Your task to perform on an android device: turn pop-ups off in chrome Image 0: 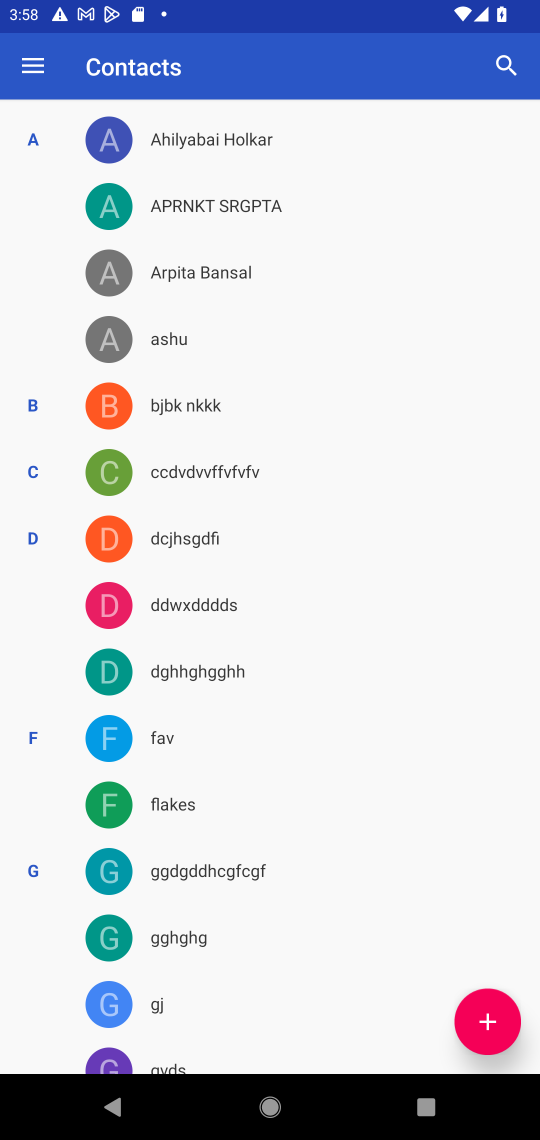
Step 0: press home button
Your task to perform on an android device: turn pop-ups off in chrome Image 1: 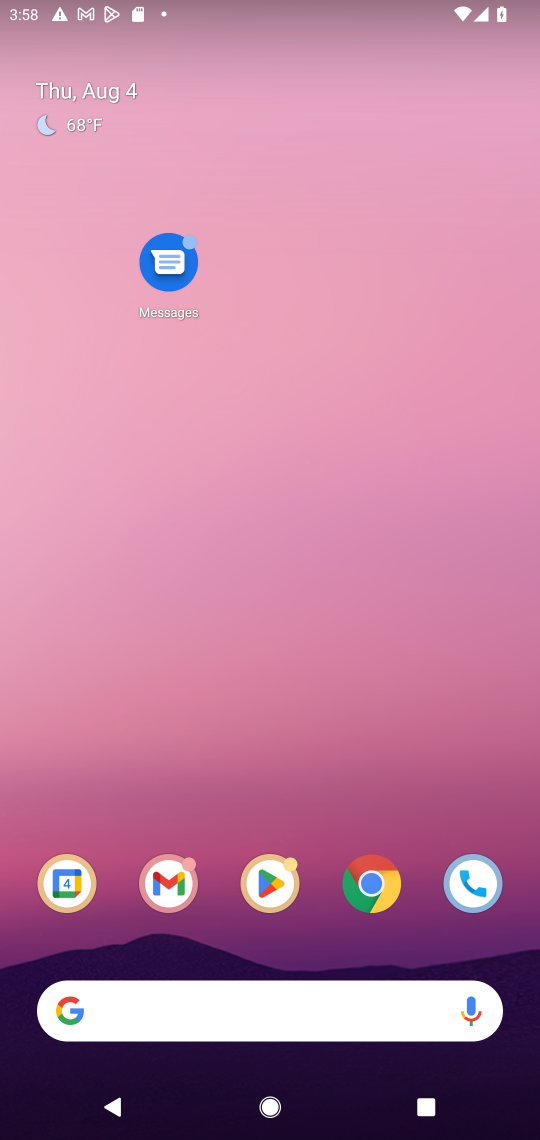
Step 1: click (382, 890)
Your task to perform on an android device: turn pop-ups off in chrome Image 2: 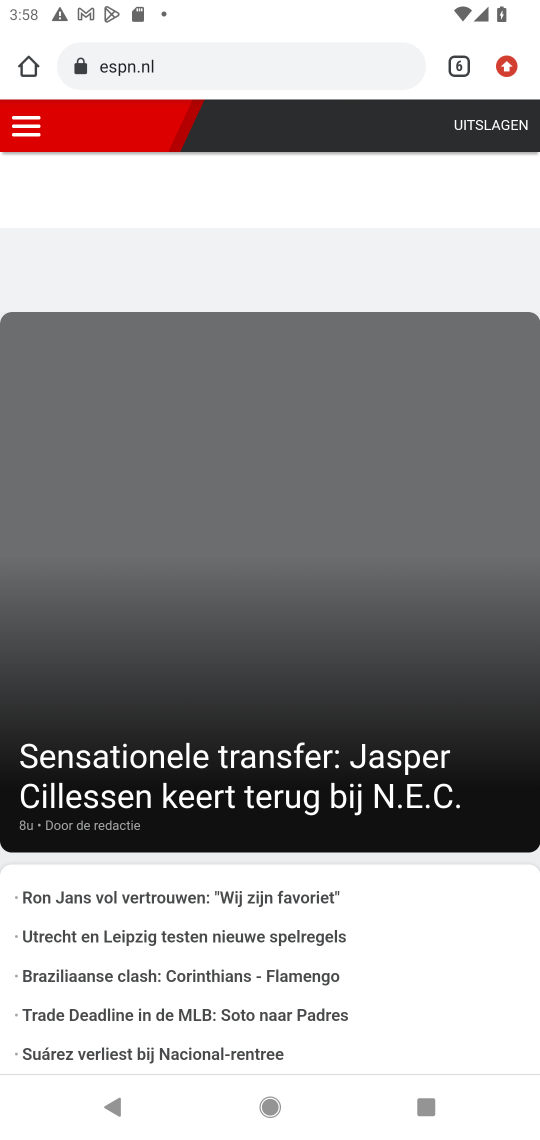
Step 2: press home button
Your task to perform on an android device: turn pop-ups off in chrome Image 3: 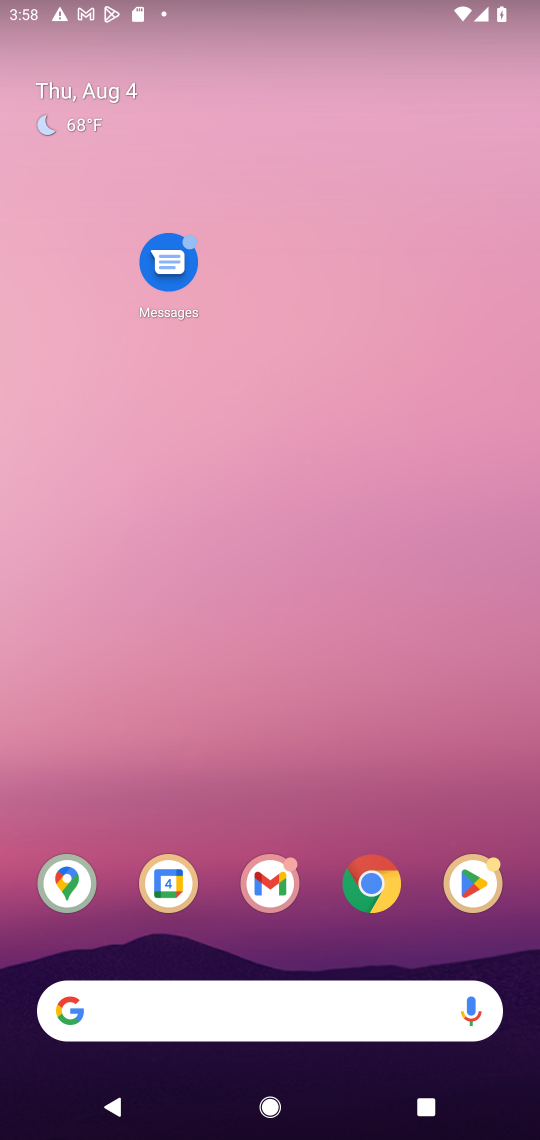
Step 3: drag from (322, 885) to (324, 20)
Your task to perform on an android device: turn pop-ups off in chrome Image 4: 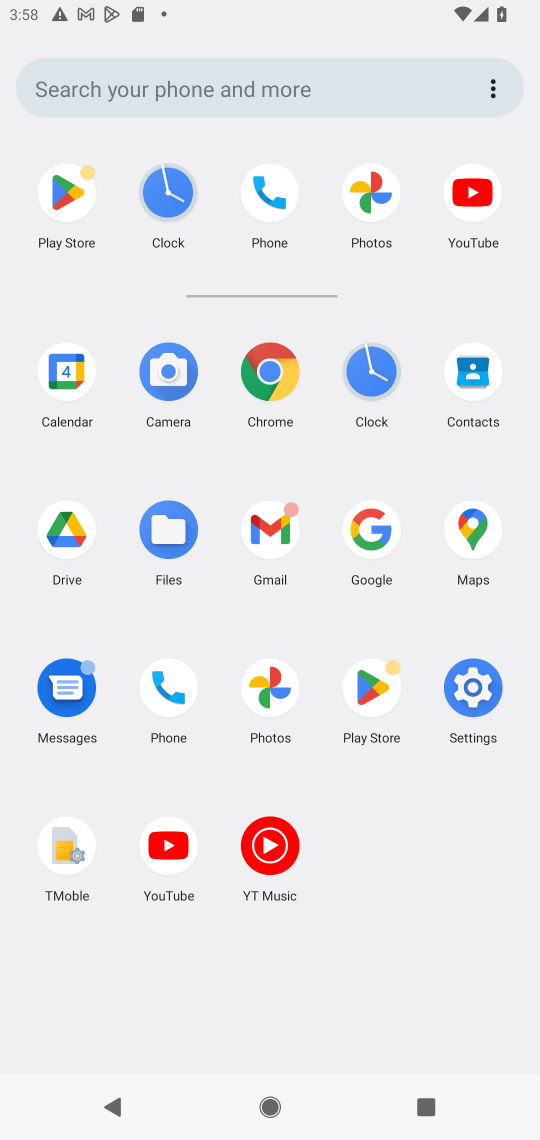
Step 4: click (277, 367)
Your task to perform on an android device: turn pop-ups off in chrome Image 5: 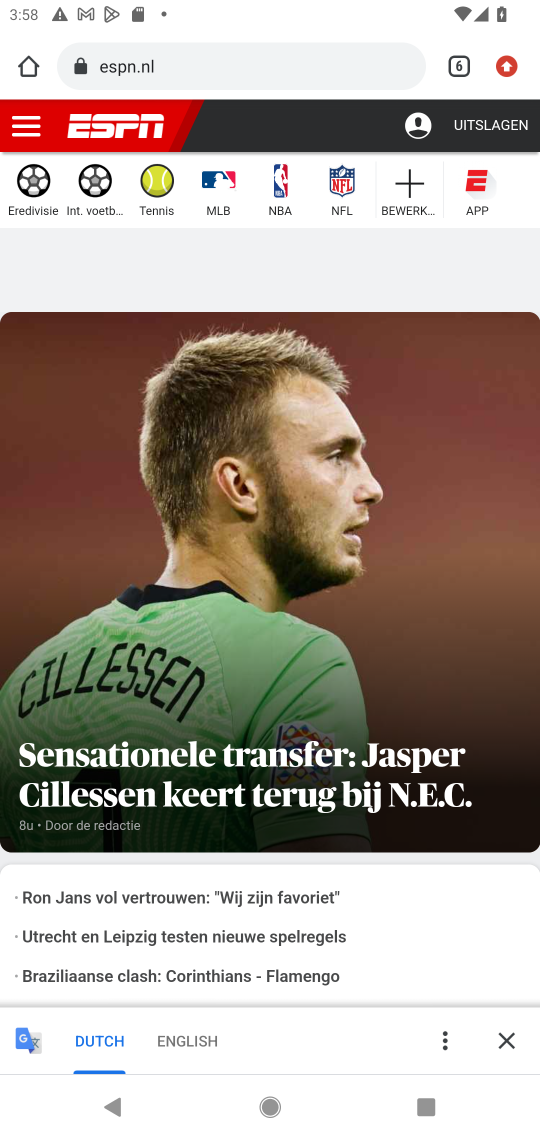
Step 5: click (507, 70)
Your task to perform on an android device: turn pop-ups off in chrome Image 6: 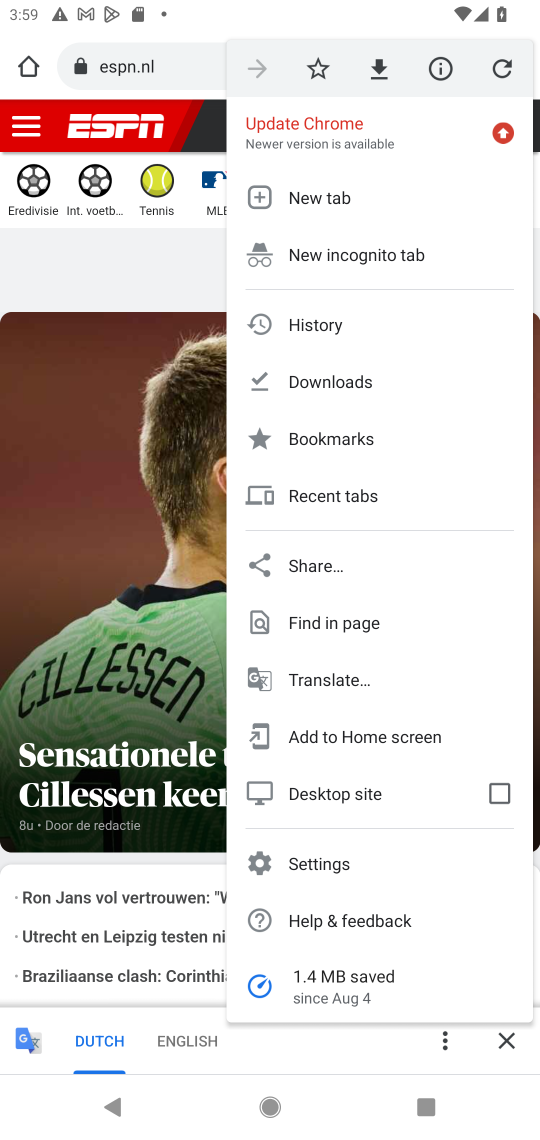
Step 6: click (308, 865)
Your task to perform on an android device: turn pop-ups off in chrome Image 7: 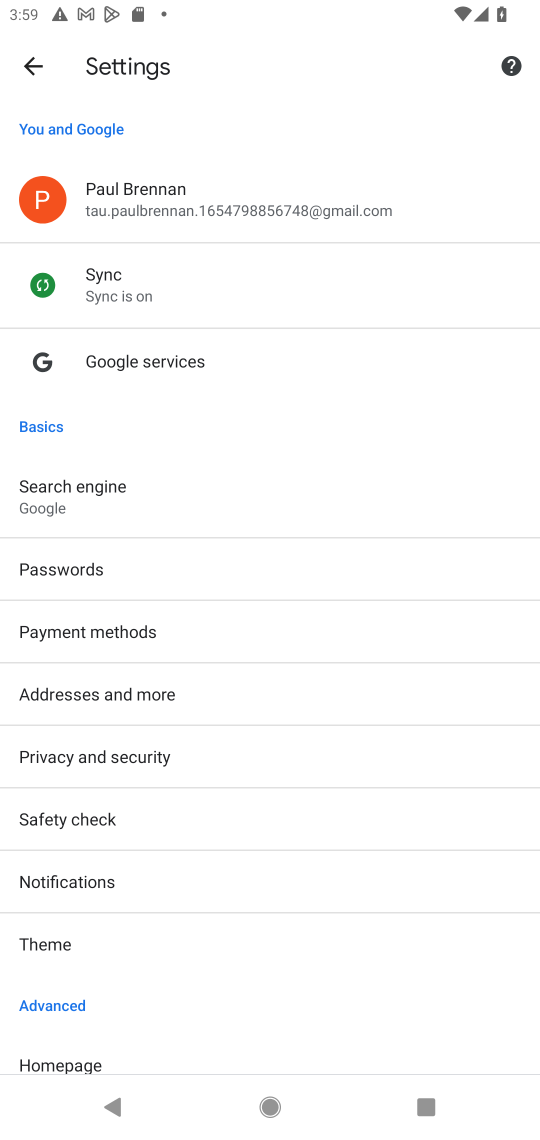
Step 7: drag from (146, 1018) to (152, 628)
Your task to perform on an android device: turn pop-ups off in chrome Image 8: 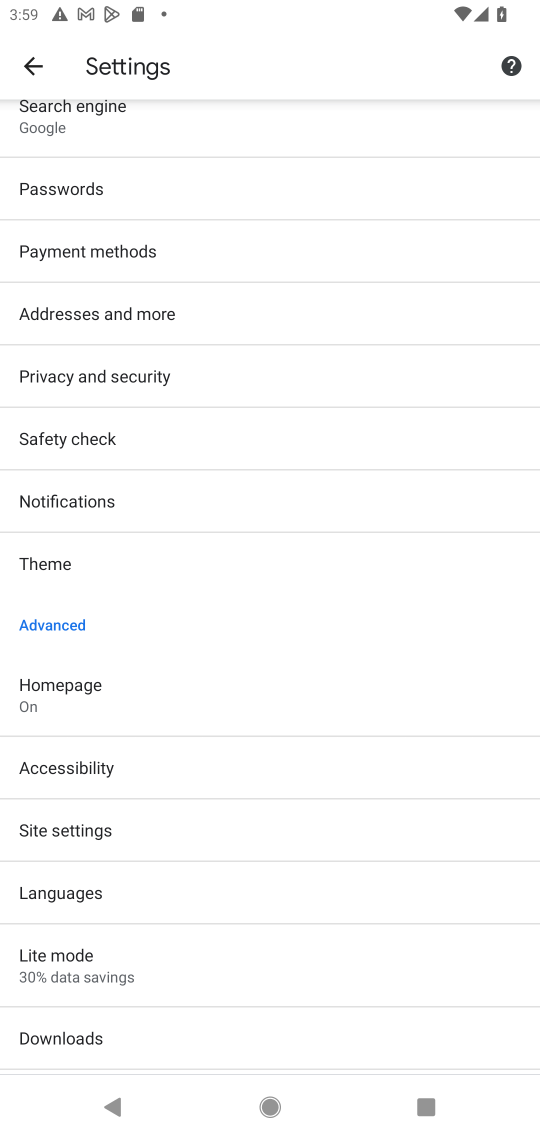
Step 8: click (76, 822)
Your task to perform on an android device: turn pop-ups off in chrome Image 9: 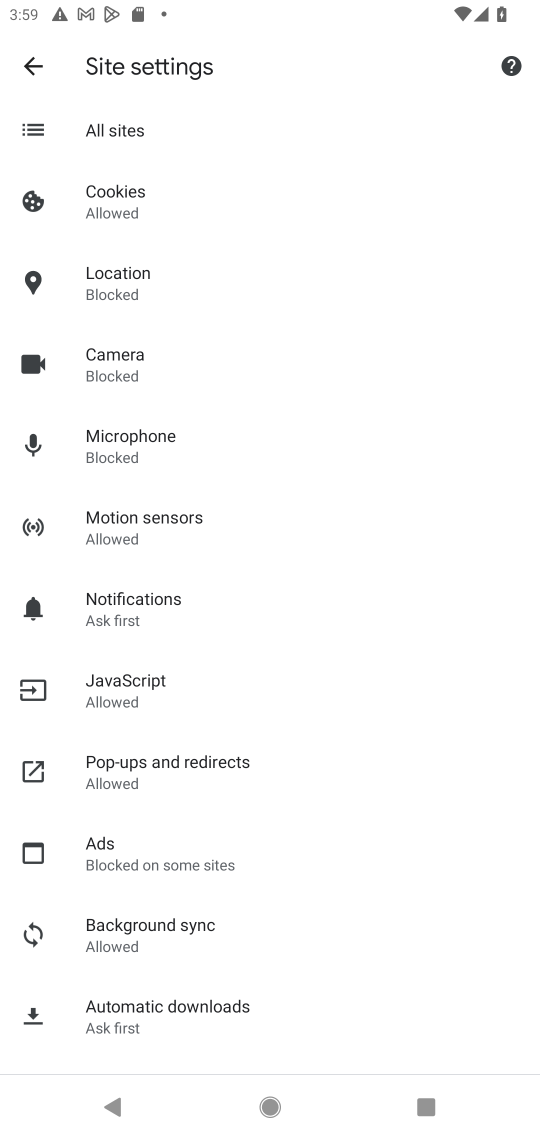
Step 9: click (150, 766)
Your task to perform on an android device: turn pop-ups off in chrome Image 10: 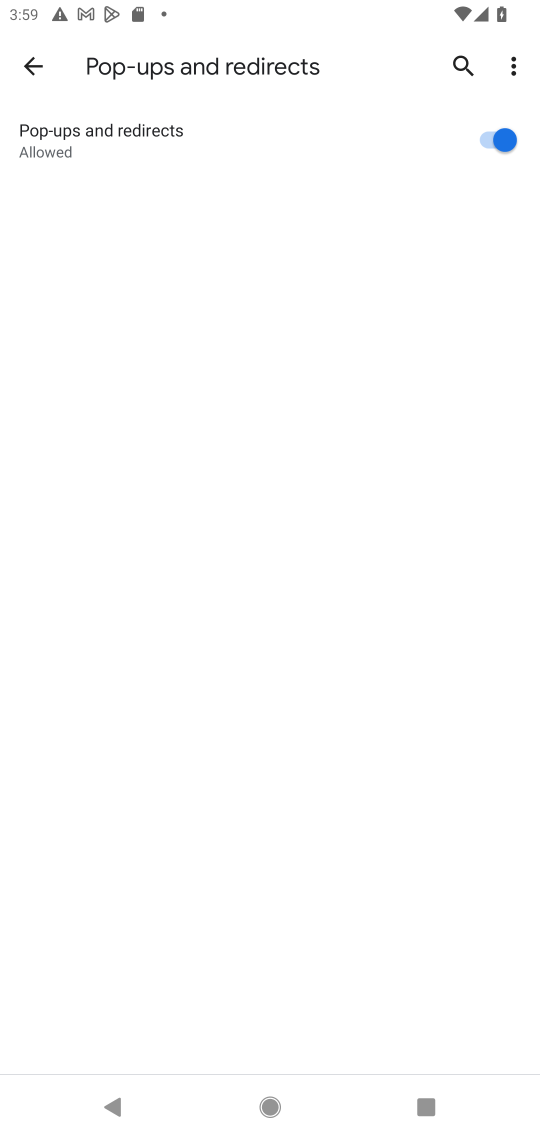
Step 10: click (481, 136)
Your task to perform on an android device: turn pop-ups off in chrome Image 11: 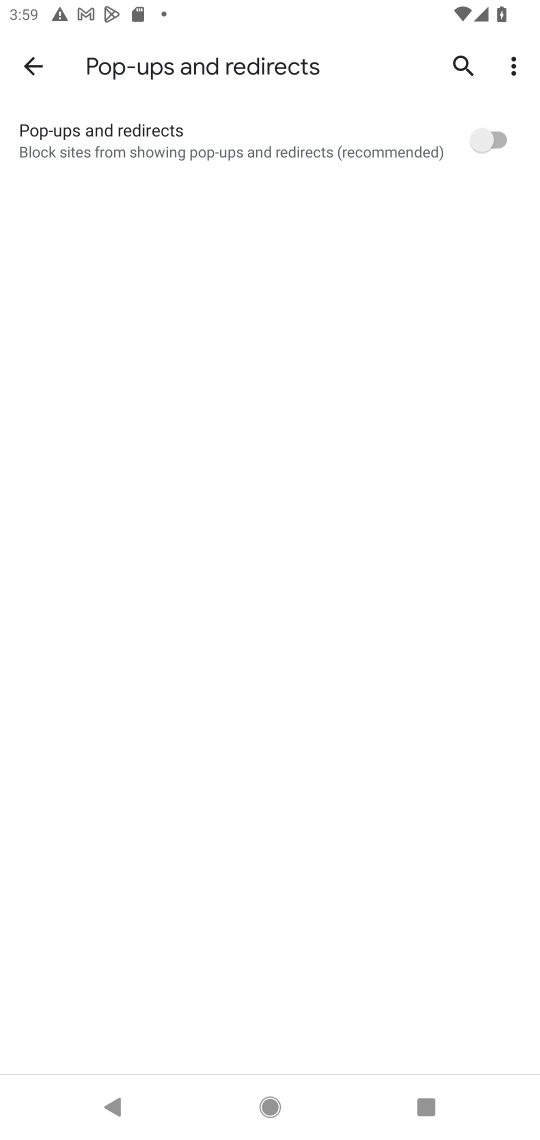
Step 11: task complete